Your task to perform on an android device: Open the stopwatch Image 0: 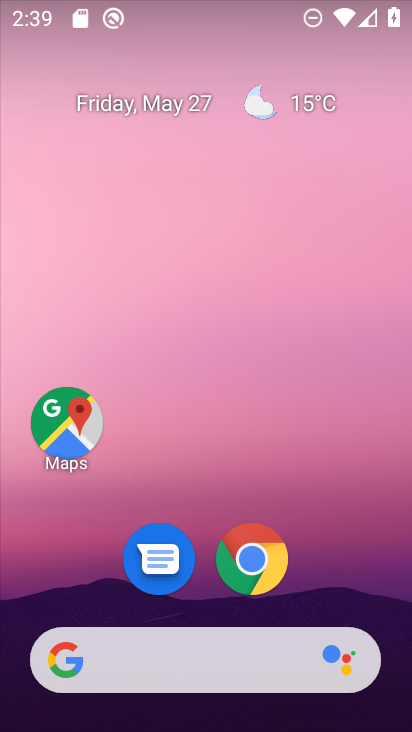
Step 0: drag from (307, 649) to (350, 0)
Your task to perform on an android device: Open the stopwatch Image 1: 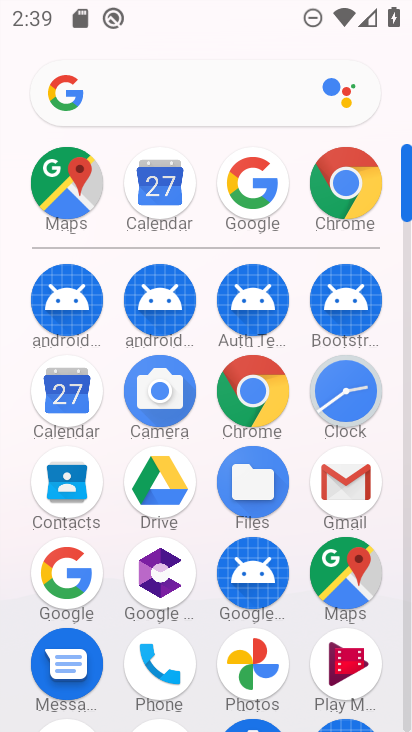
Step 1: click (341, 402)
Your task to perform on an android device: Open the stopwatch Image 2: 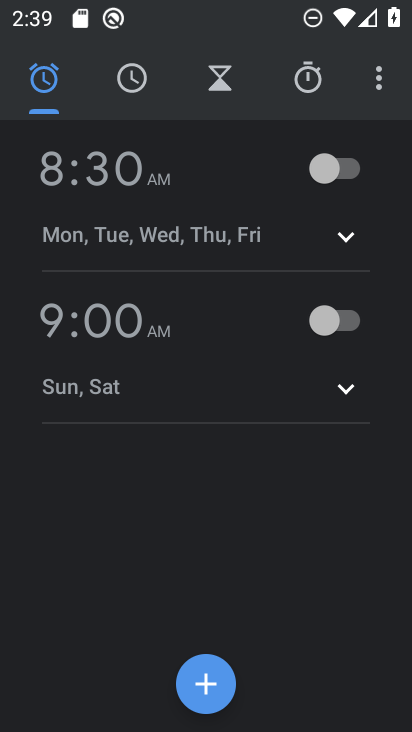
Step 2: click (302, 77)
Your task to perform on an android device: Open the stopwatch Image 3: 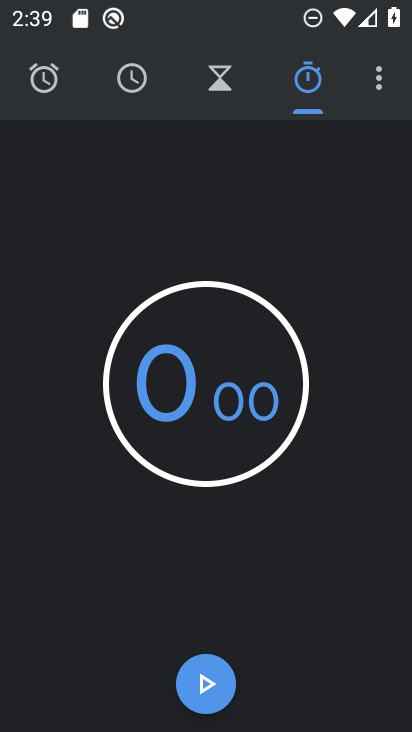
Step 3: task complete